Your task to perform on an android device: move an email to a new category in the gmail app Image 0: 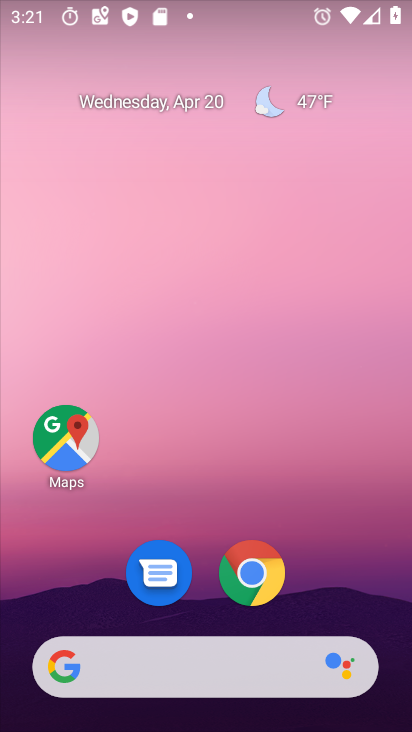
Step 0: drag from (216, 726) to (184, 69)
Your task to perform on an android device: move an email to a new category in the gmail app Image 1: 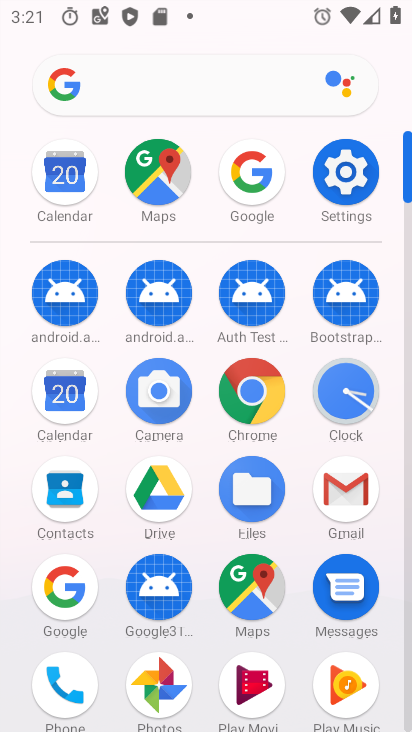
Step 1: click (343, 489)
Your task to perform on an android device: move an email to a new category in the gmail app Image 2: 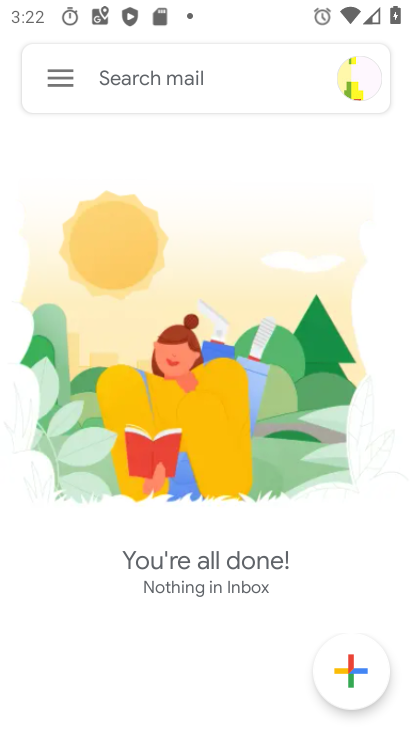
Step 2: task complete